Your task to perform on an android device: Show me the alarms in the clock app Image 0: 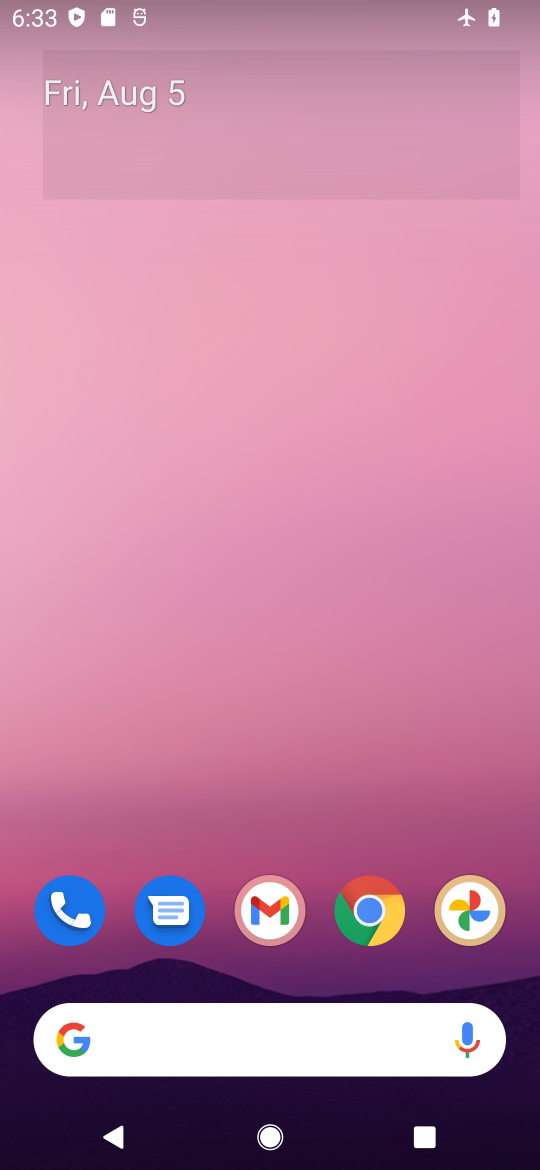
Step 0: drag from (237, 1040) to (158, 69)
Your task to perform on an android device: Show me the alarms in the clock app Image 1: 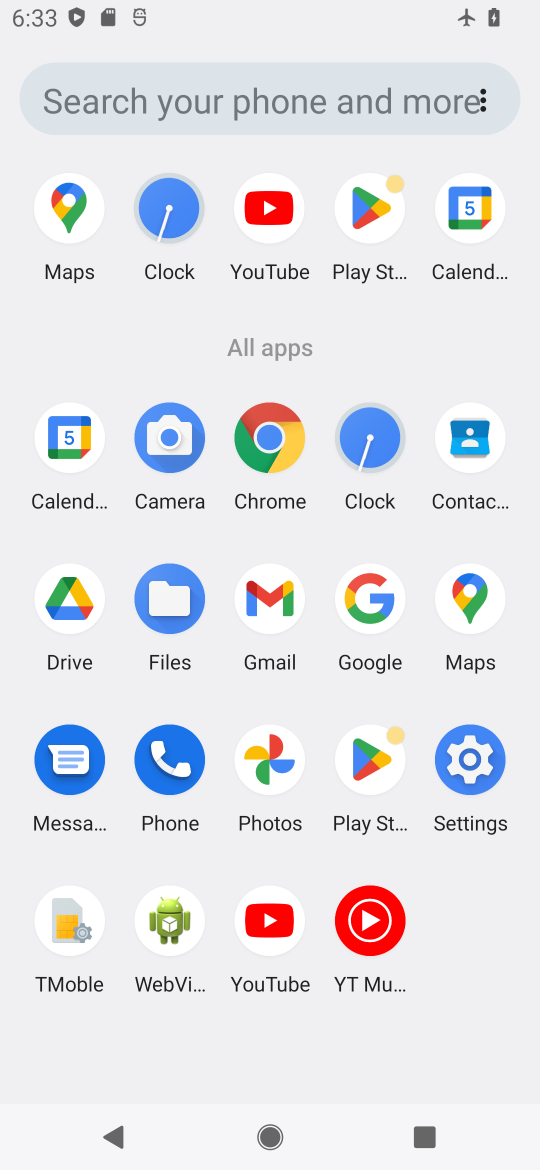
Step 1: click (391, 446)
Your task to perform on an android device: Show me the alarms in the clock app Image 2: 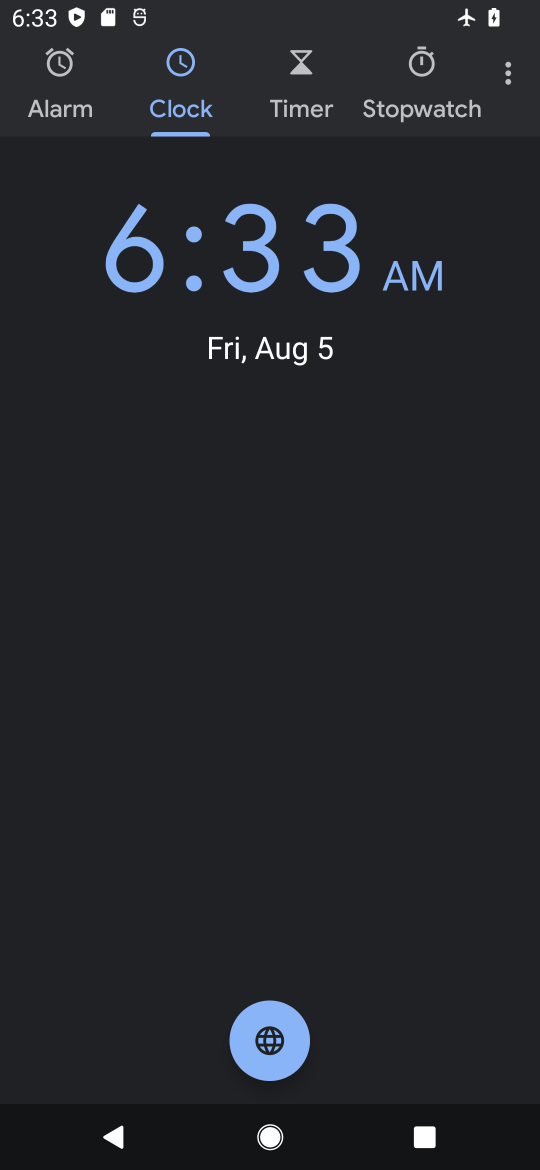
Step 2: click (69, 69)
Your task to perform on an android device: Show me the alarms in the clock app Image 3: 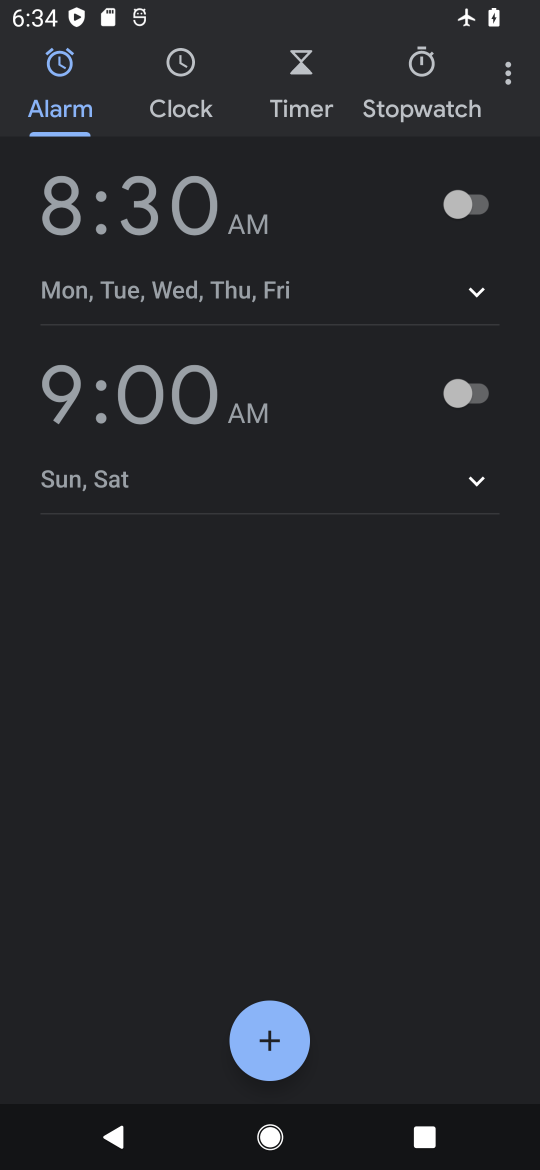
Step 3: task complete